Your task to perform on an android device: Go to Android settings Image 0: 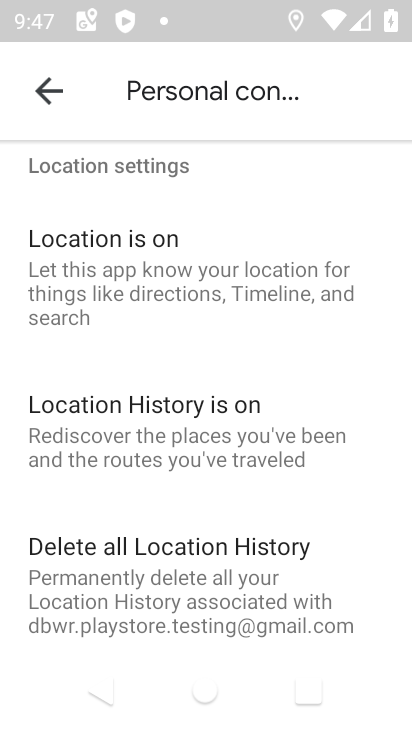
Step 0: press home button
Your task to perform on an android device: Go to Android settings Image 1: 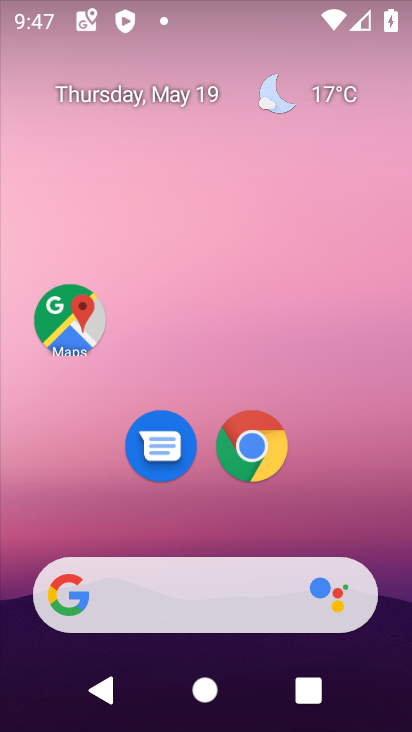
Step 1: drag from (281, 537) to (305, 122)
Your task to perform on an android device: Go to Android settings Image 2: 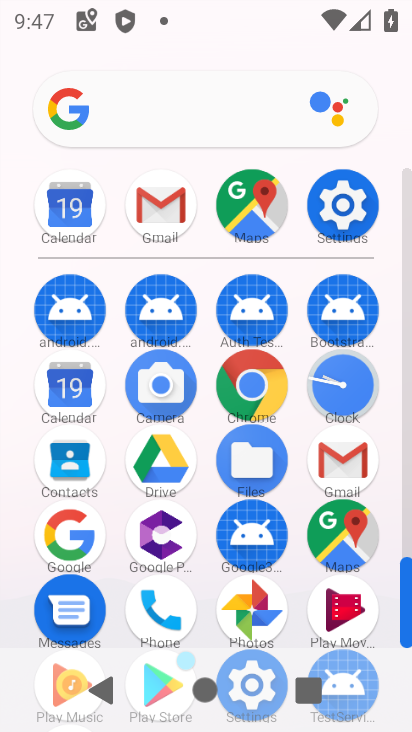
Step 2: click (355, 196)
Your task to perform on an android device: Go to Android settings Image 3: 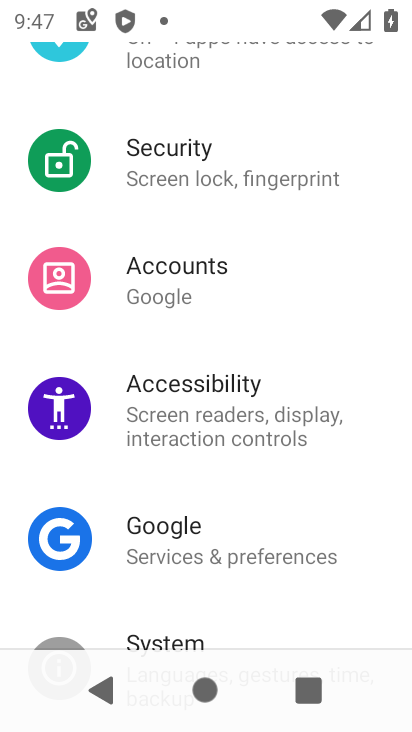
Step 3: drag from (222, 544) to (251, 117)
Your task to perform on an android device: Go to Android settings Image 4: 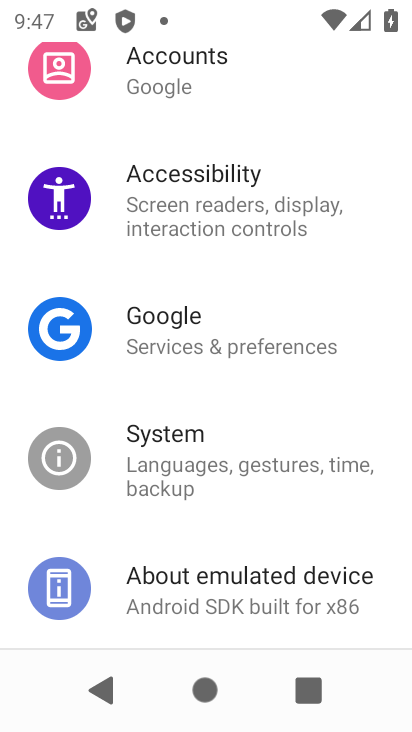
Step 4: click (210, 594)
Your task to perform on an android device: Go to Android settings Image 5: 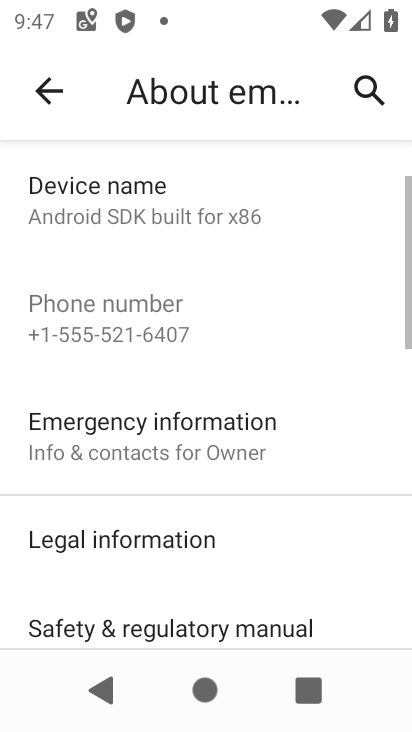
Step 5: drag from (238, 501) to (266, 174)
Your task to perform on an android device: Go to Android settings Image 6: 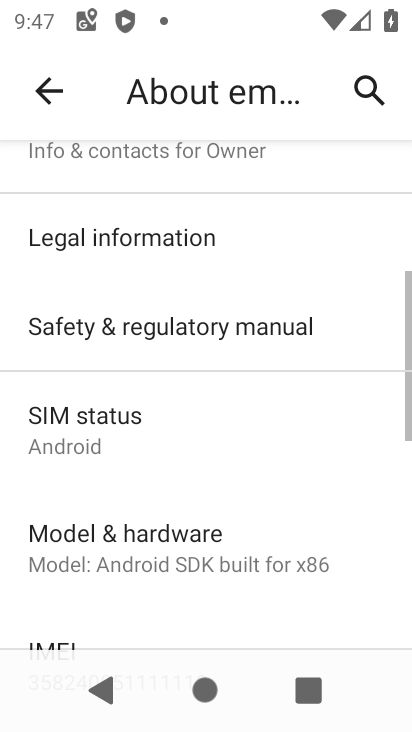
Step 6: drag from (168, 516) to (173, 321)
Your task to perform on an android device: Go to Android settings Image 7: 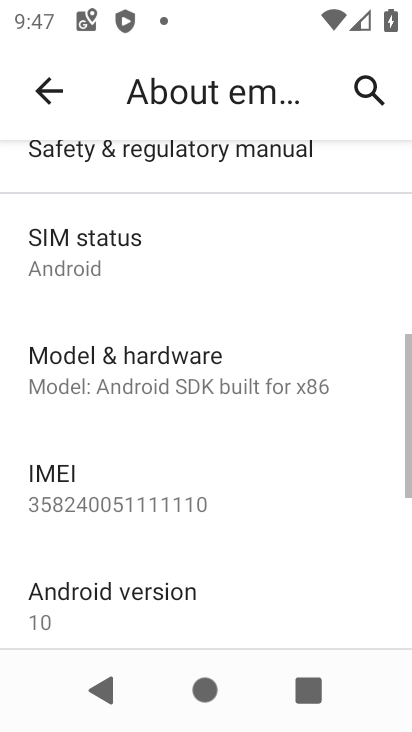
Step 7: click (123, 602)
Your task to perform on an android device: Go to Android settings Image 8: 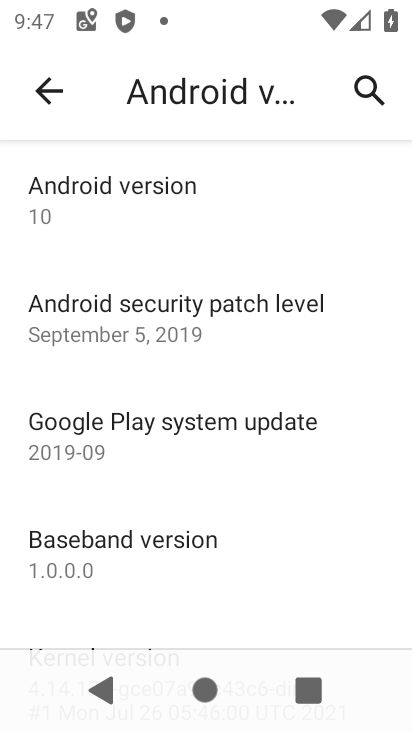
Step 8: task complete